Your task to perform on an android device: open a bookmark in the chrome app Image 0: 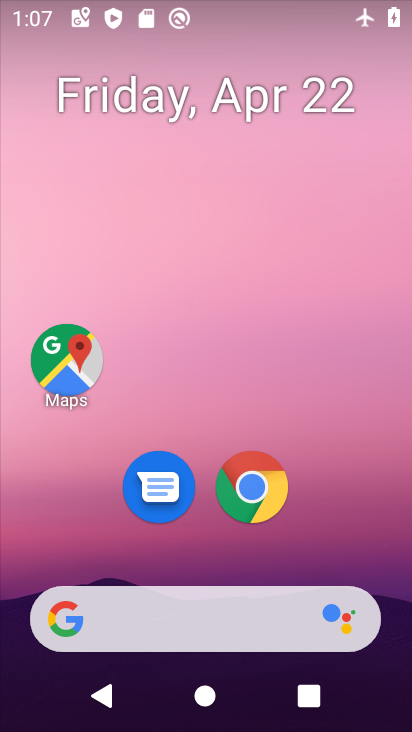
Step 0: click (250, 501)
Your task to perform on an android device: open a bookmark in the chrome app Image 1: 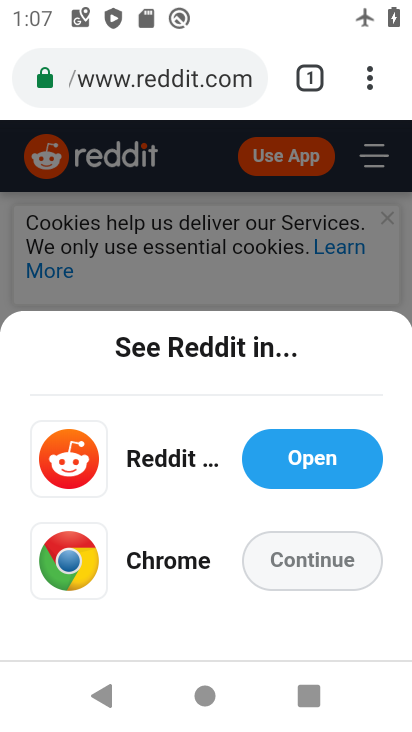
Step 1: click (368, 82)
Your task to perform on an android device: open a bookmark in the chrome app Image 2: 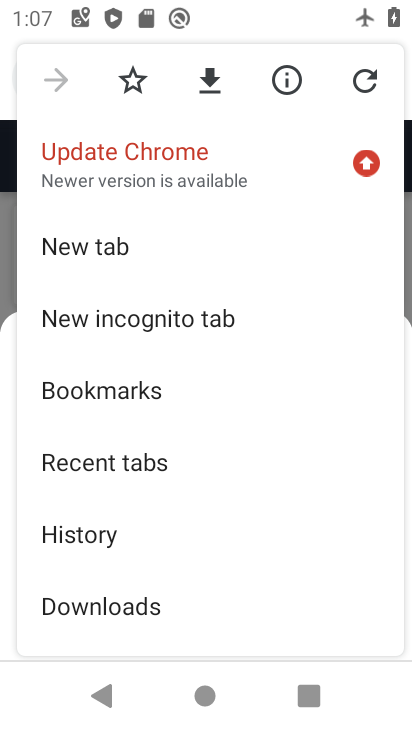
Step 2: click (105, 386)
Your task to perform on an android device: open a bookmark in the chrome app Image 3: 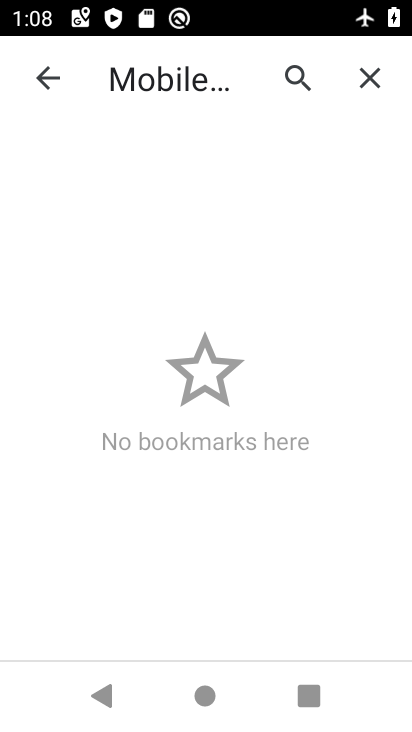
Step 3: task complete